Your task to perform on an android device: What's the weather today? Image 0: 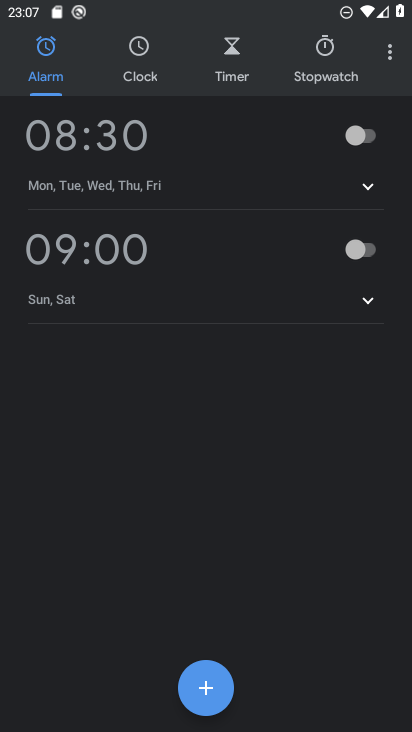
Step 0: press home button
Your task to perform on an android device: What's the weather today? Image 1: 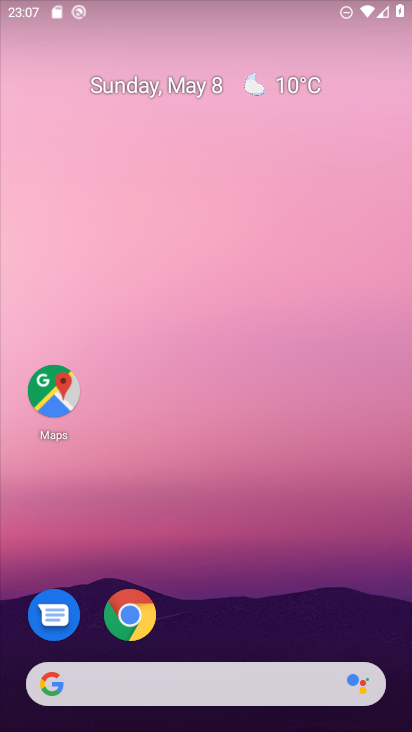
Step 1: click (309, 88)
Your task to perform on an android device: What's the weather today? Image 2: 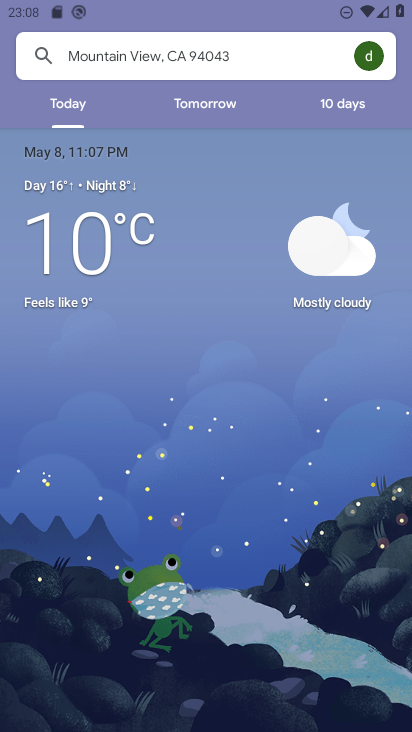
Step 2: task complete